Your task to perform on an android device: open device folders in google photos Image 0: 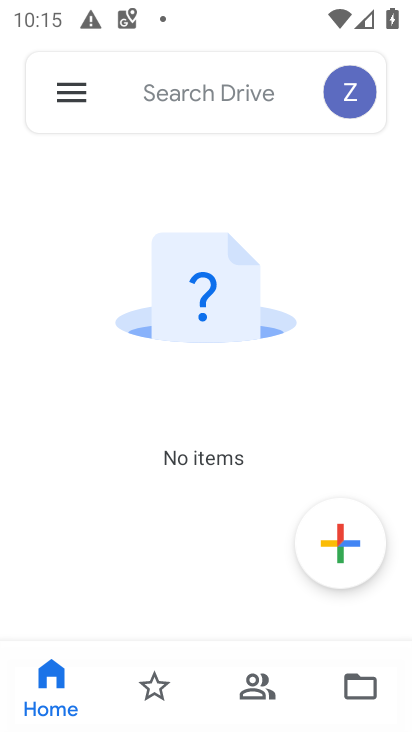
Step 0: press home button
Your task to perform on an android device: open device folders in google photos Image 1: 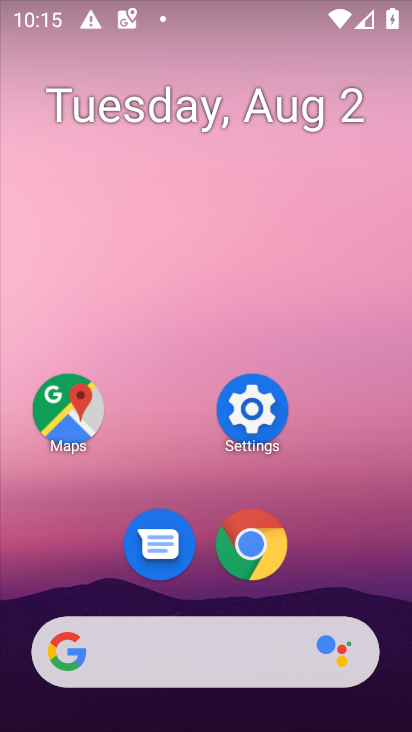
Step 1: drag from (212, 668) to (293, 198)
Your task to perform on an android device: open device folders in google photos Image 2: 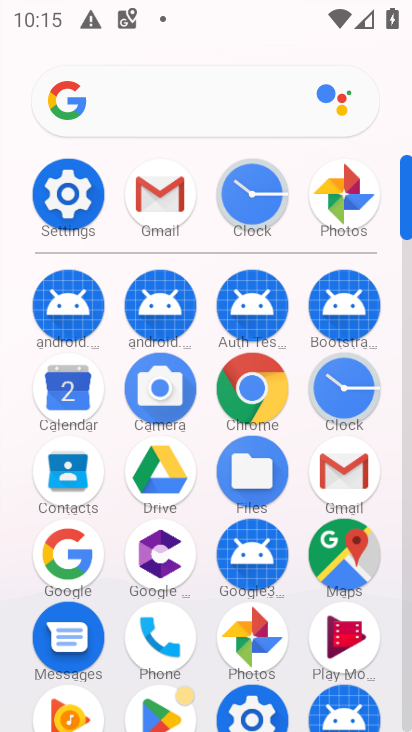
Step 2: drag from (205, 608) to (284, 266)
Your task to perform on an android device: open device folders in google photos Image 3: 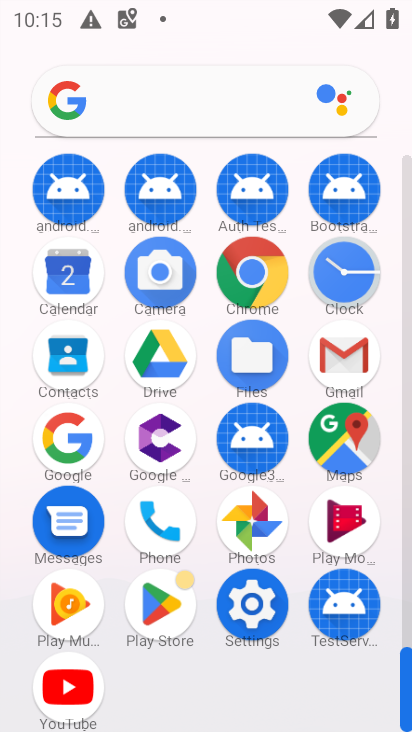
Step 3: click (259, 522)
Your task to perform on an android device: open device folders in google photos Image 4: 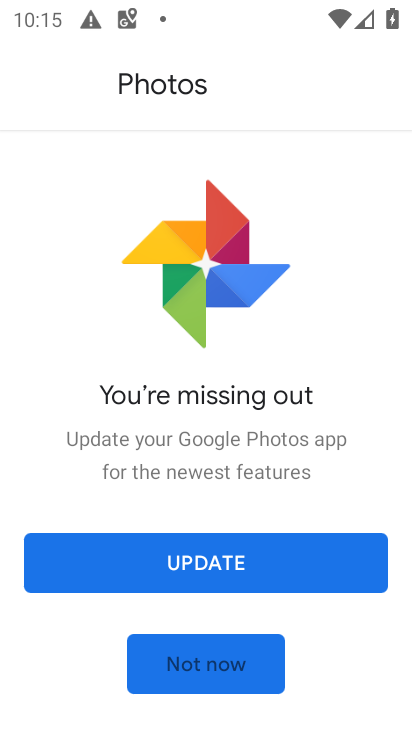
Step 4: click (200, 554)
Your task to perform on an android device: open device folders in google photos Image 5: 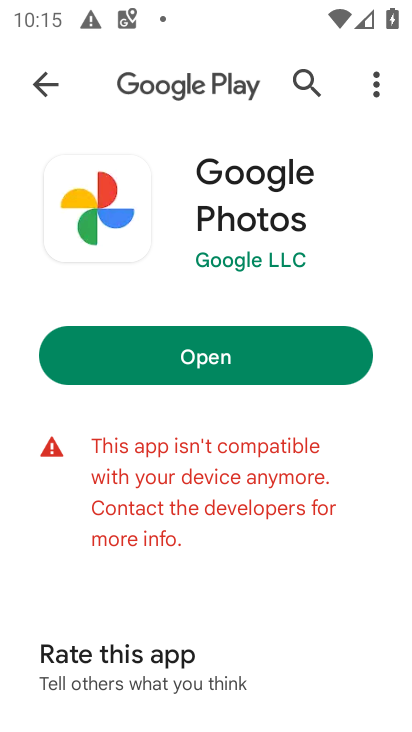
Step 5: click (235, 357)
Your task to perform on an android device: open device folders in google photos Image 6: 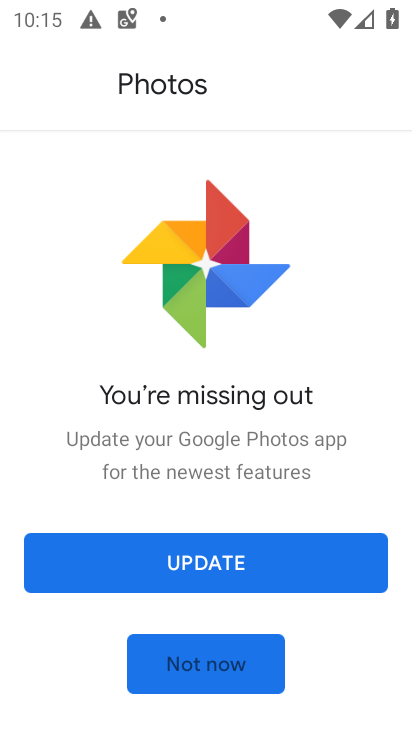
Step 6: click (180, 670)
Your task to perform on an android device: open device folders in google photos Image 7: 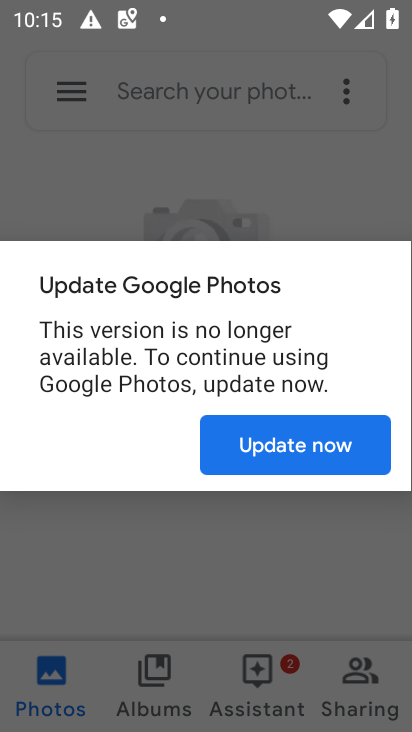
Step 7: task complete